Your task to perform on an android device: open a new tab in the chrome app Image 0: 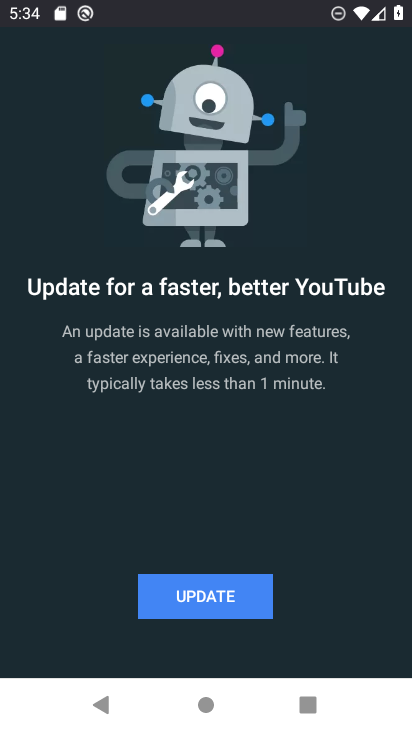
Step 0: press home button
Your task to perform on an android device: open a new tab in the chrome app Image 1: 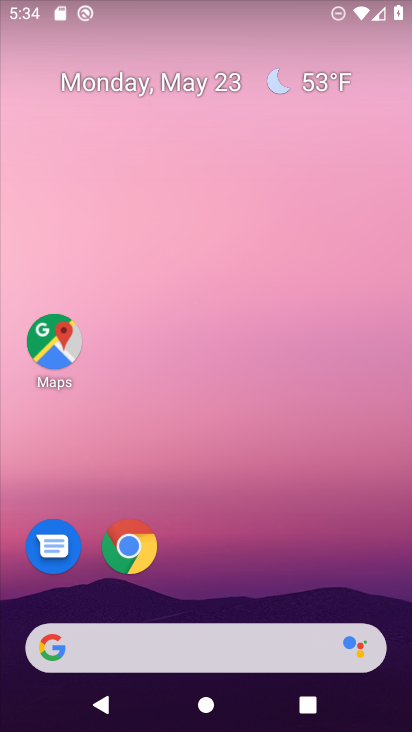
Step 1: click (131, 547)
Your task to perform on an android device: open a new tab in the chrome app Image 2: 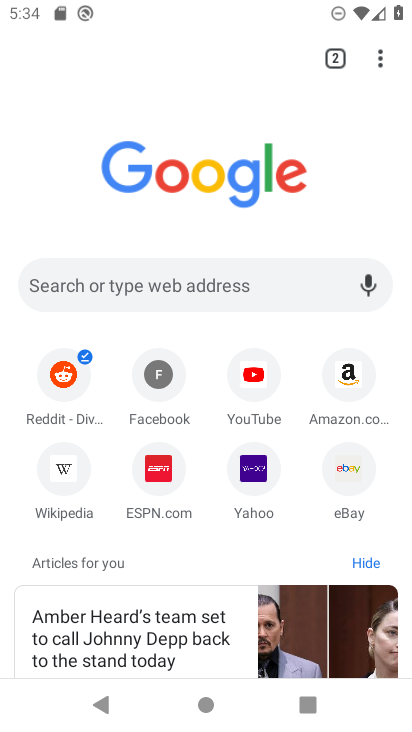
Step 2: click (337, 61)
Your task to perform on an android device: open a new tab in the chrome app Image 3: 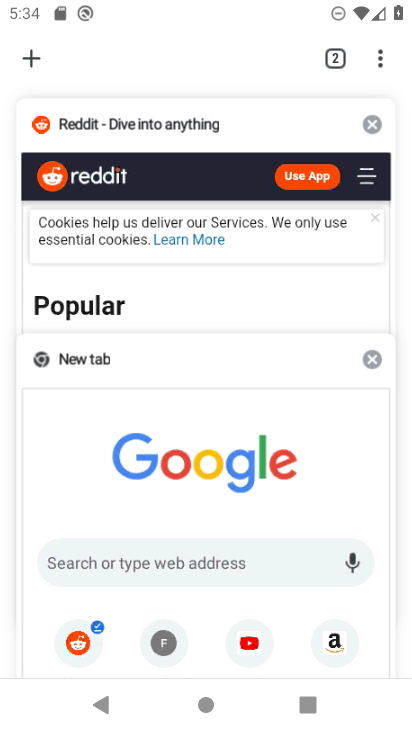
Step 3: click (32, 52)
Your task to perform on an android device: open a new tab in the chrome app Image 4: 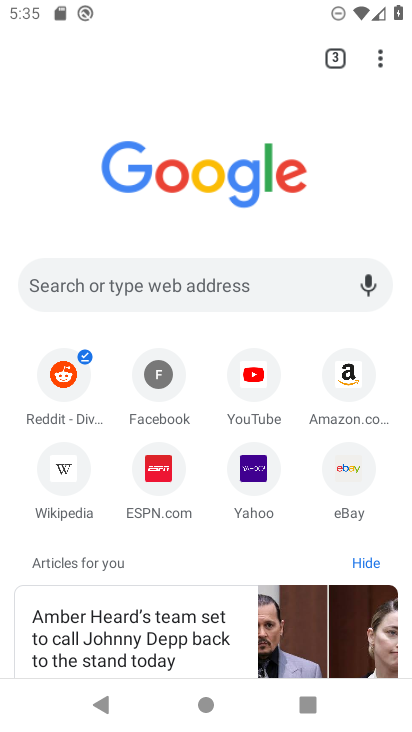
Step 4: task complete